Your task to perform on an android device: Clear all items from cart on target. Image 0: 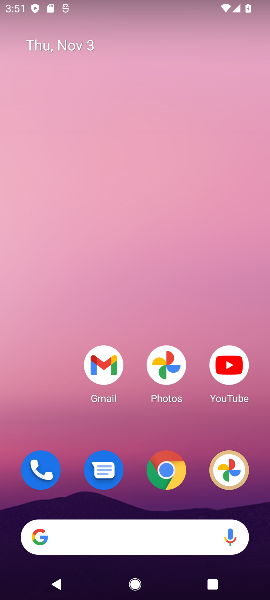
Step 0: click (169, 469)
Your task to perform on an android device: Clear all items from cart on target. Image 1: 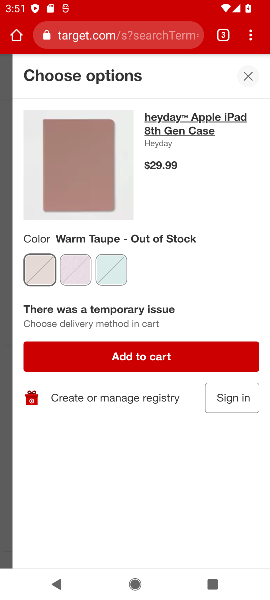
Step 1: click (249, 71)
Your task to perform on an android device: Clear all items from cart on target. Image 2: 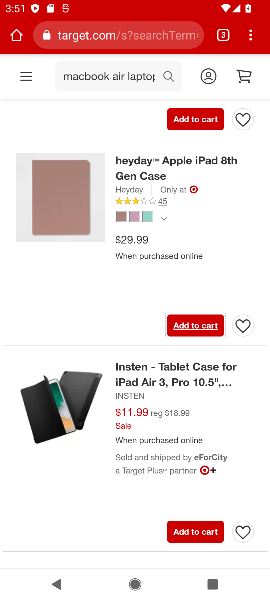
Step 2: click (240, 75)
Your task to perform on an android device: Clear all items from cart on target. Image 3: 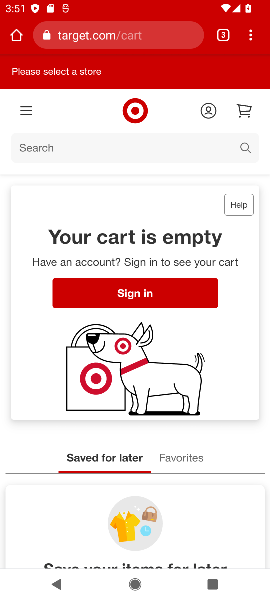
Step 3: task complete